Your task to perform on an android device: turn on showing notifications on the lock screen Image 0: 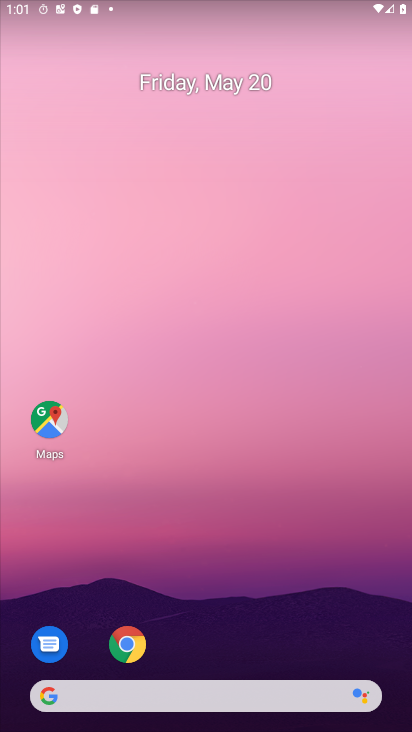
Step 0: drag from (305, 547) to (292, 78)
Your task to perform on an android device: turn on showing notifications on the lock screen Image 1: 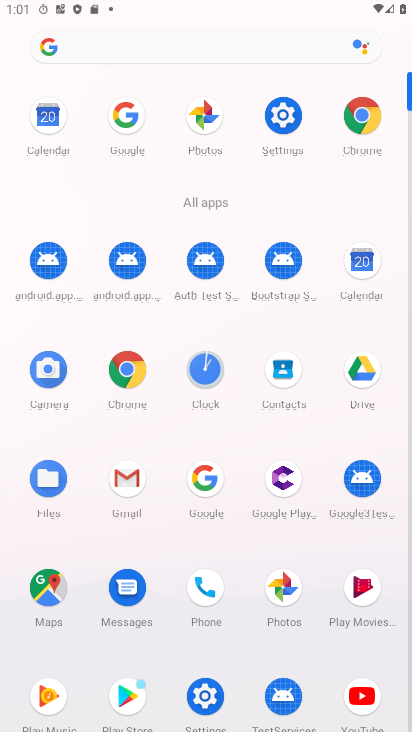
Step 1: click (288, 107)
Your task to perform on an android device: turn on showing notifications on the lock screen Image 2: 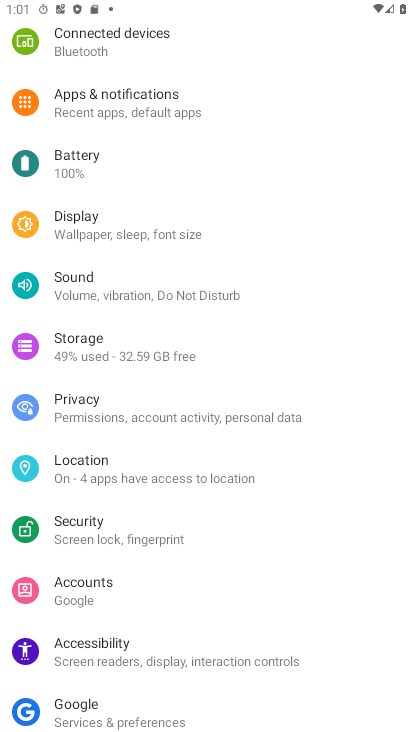
Step 2: click (149, 107)
Your task to perform on an android device: turn on showing notifications on the lock screen Image 3: 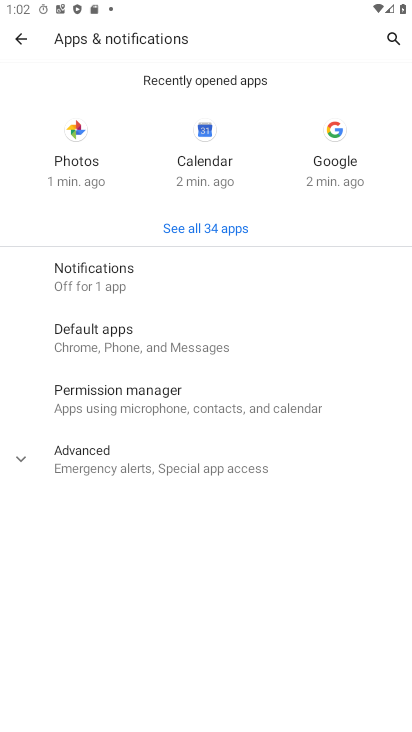
Step 3: click (108, 289)
Your task to perform on an android device: turn on showing notifications on the lock screen Image 4: 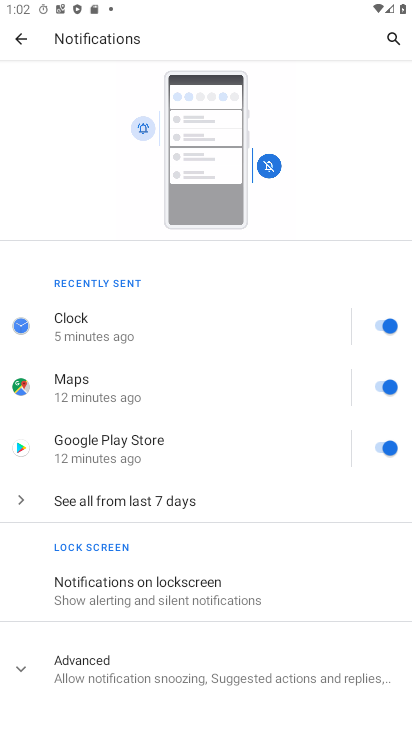
Step 4: click (131, 581)
Your task to perform on an android device: turn on showing notifications on the lock screen Image 5: 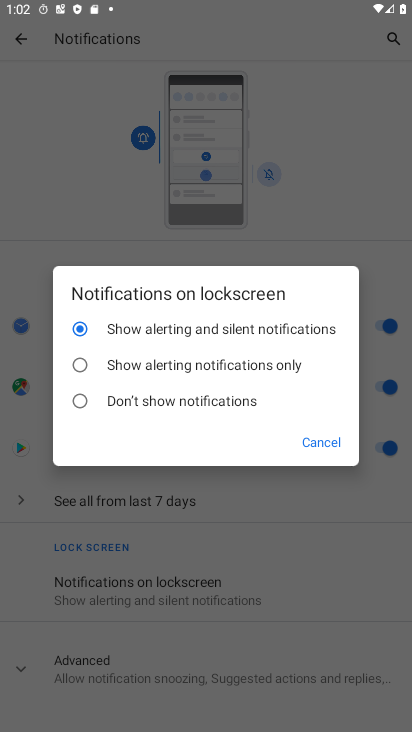
Step 5: click (149, 368)
Your task to perform on an android device: turn on showing notifications on the lock screen Image 6: 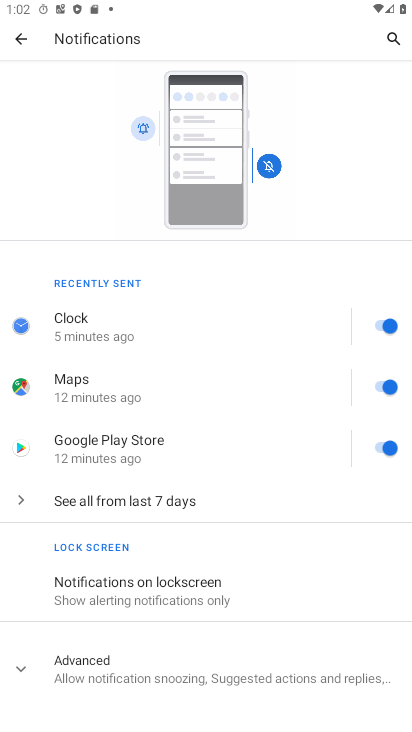
Step 6: task complete